Your task to perform on an android device: Go to Yahoo.com Image 0: 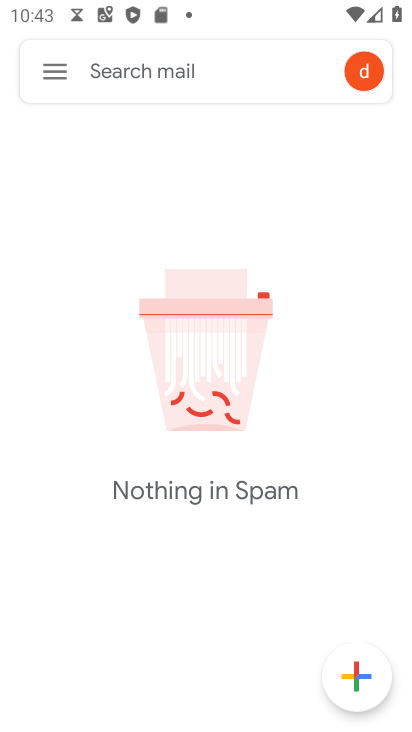
Step 0: press home button
Your task to perform on an android device: Go to Yahoo.com Image 1: 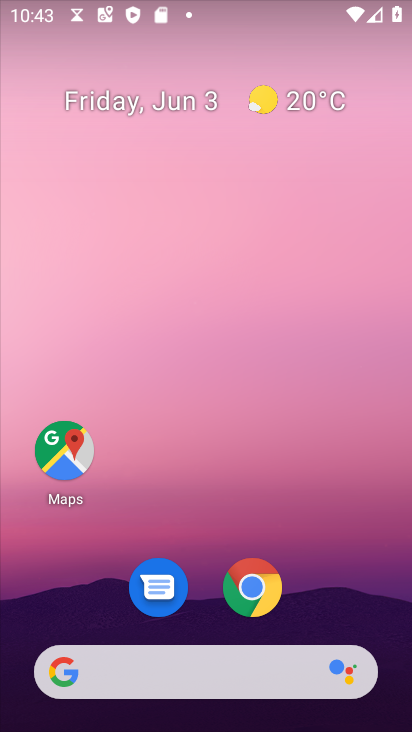
Step 1: drag from (333, 595) to (272, 20)
Your task to perform on an android device: Go to Yahoo.com Image 2: 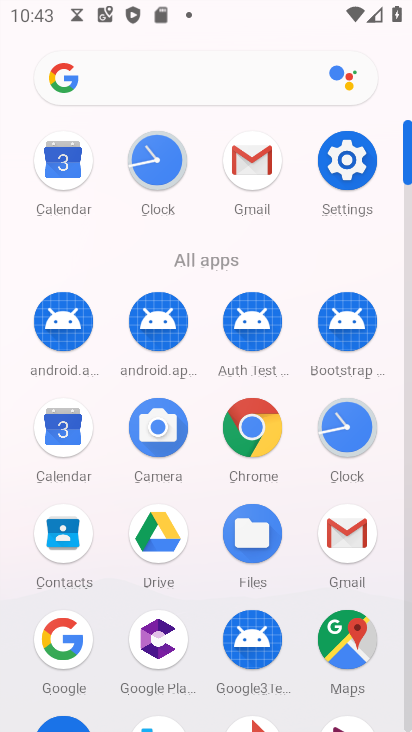
Step 2: click (260, 425)
Your task to perform on an android device: Go to Yahoo.com Image 3: 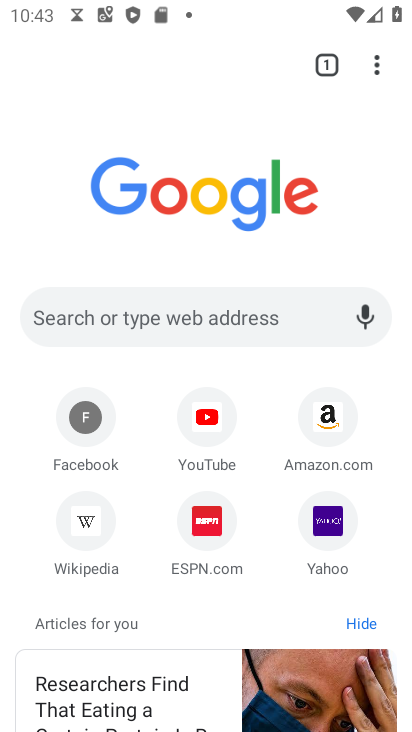
Step 3: click (351, 533)
Your task to perform on an android device: Go to Yahoo.com Image 4: 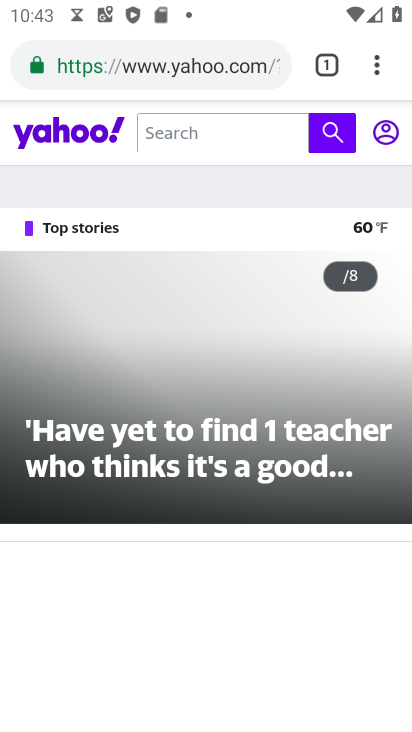
Step 4: task complete